Your task to perform on an android device: Open notification settings Image 0: 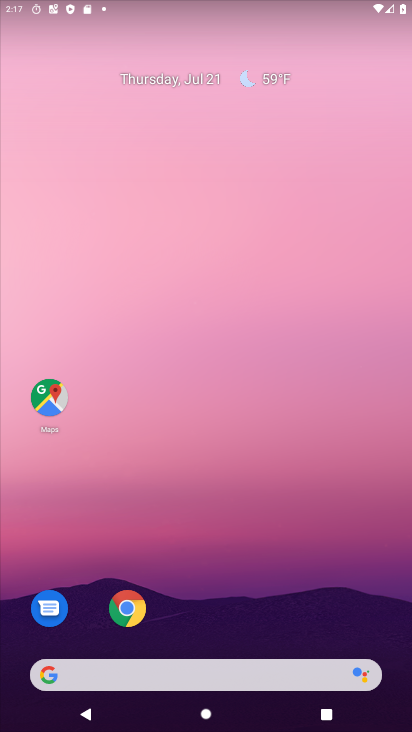
Step 0: drag from (250, 623) to (263, 188)
Your task to perform on an android device: Open notification settings Image 1: 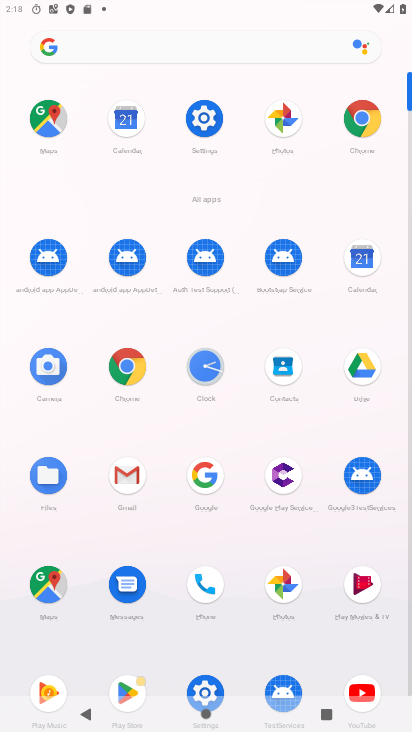
Step 1: click (193, 121)
Your task to perform on an android device: Open notification settings Image 2: 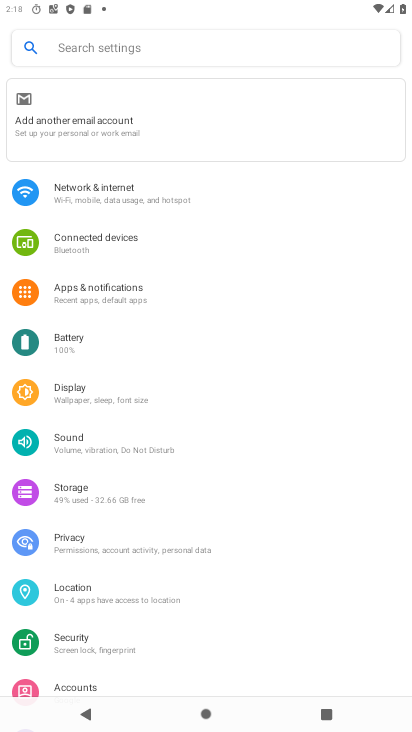
Step 2: click (132, 307)
Your task to perform on an android device: Open notification settings Image 3: 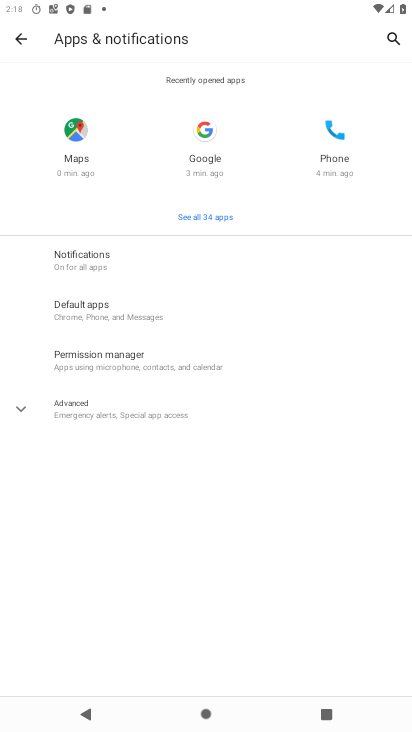
Step 3: click (85, 249)
Your task to perform on an android device: Open notification settings Image 4: 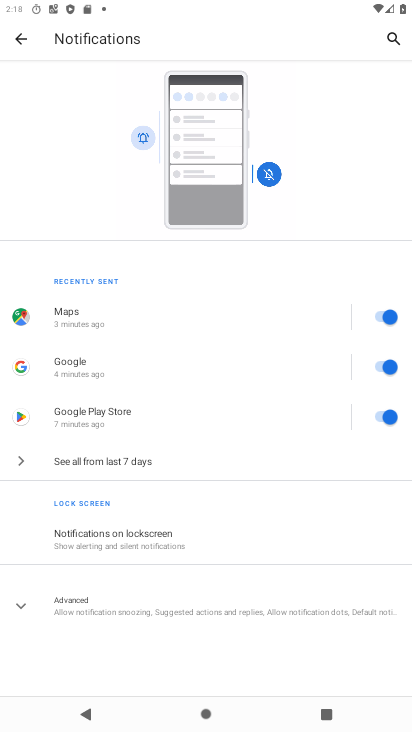
Step 4: task complete